Your task to perform on an android device: Open display settings Image 0: 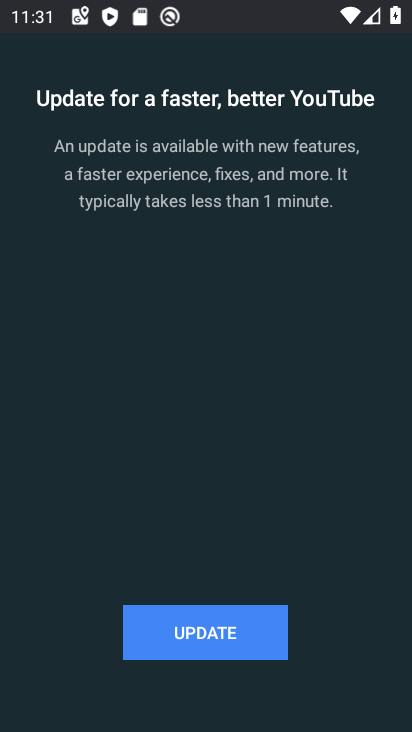
Step 0: press back button
Your task to perform on an android device: Open display settings Image 1: 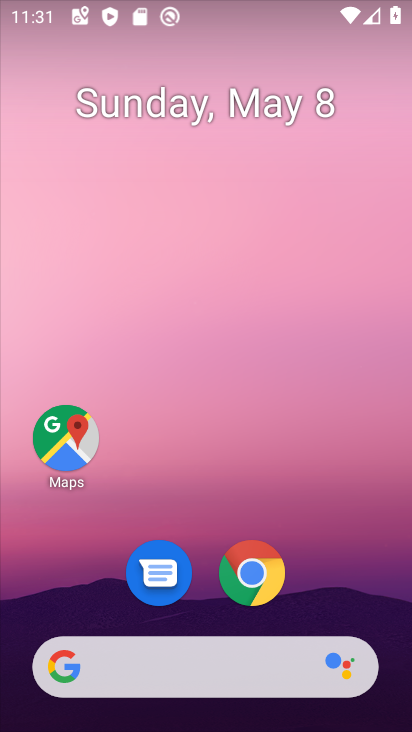
Step 1: drag from (340, 554) to (271, 27)
Your task to perform on an android device: Open display settings Image 2: 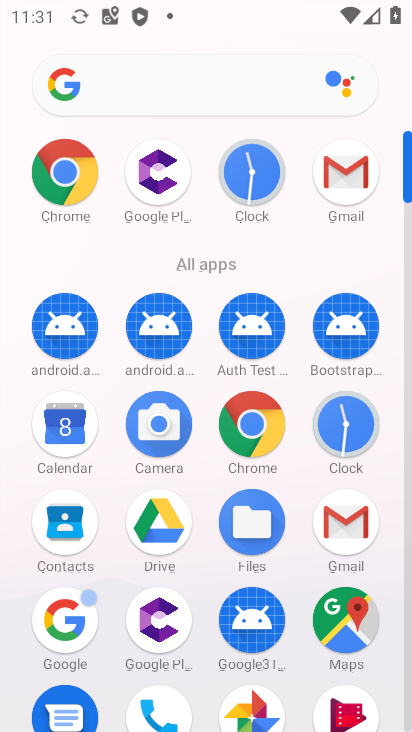
Step 2: drag from (12, 645) to (16, 296)
Your task to perform on an android device: Open display settings Image 3: 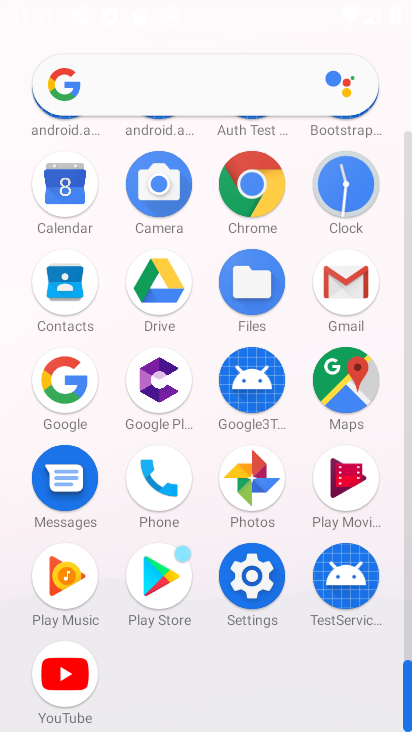
Step 3: click (251, 576)
Your task to perform on an android device: Open display settings Image 4: 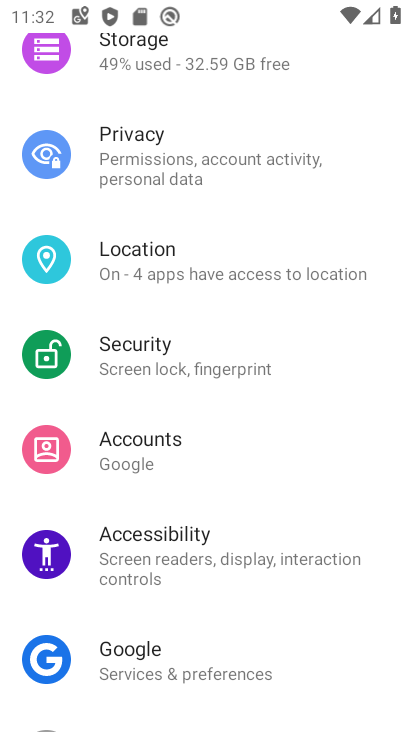
Step 4: drag from (260, 143) to (287, 488)
Your task to perform on an android device: Open display settings Image 5: 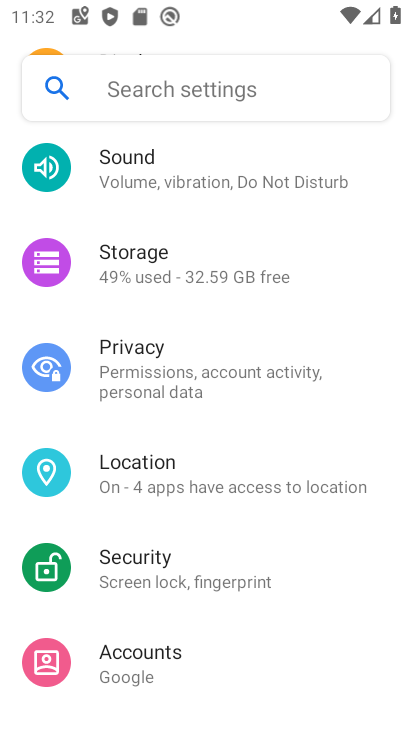
Step 5: drag from (242, 240) to (237, 547)
Your task to perform on an android device: Open display settings Image 6: 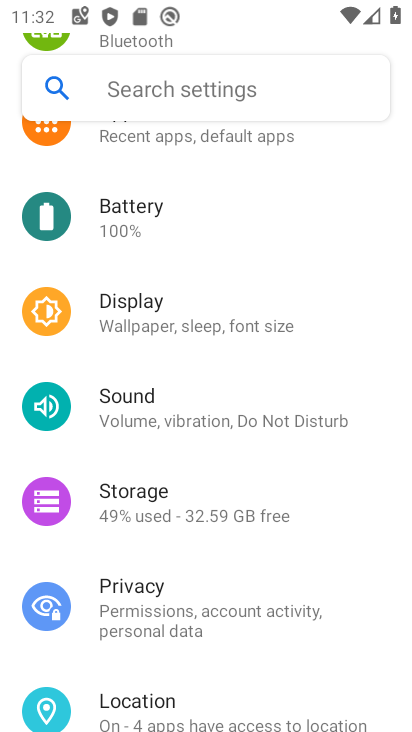
Step 6: drag from (255, 307) to (259, 462)
Your task to perform on an android device: Open display settings Image 7: 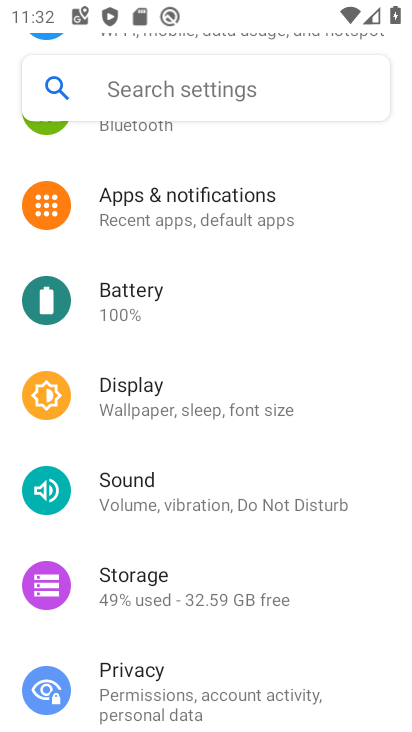
Step 7: click (205, 401)
Your task to perform on an android device: Open display settings Image 8: 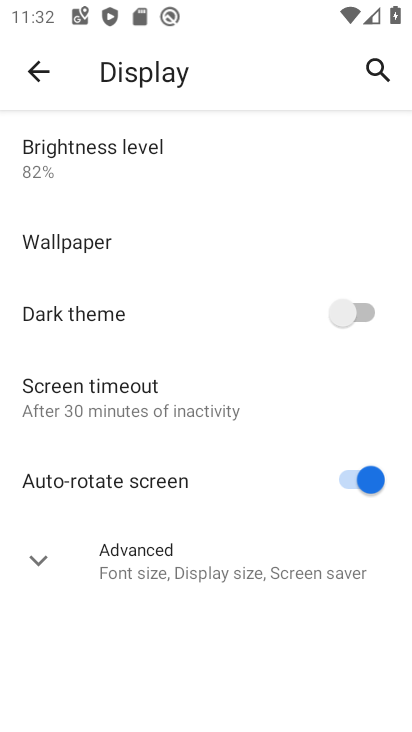
Step 8: click (34, 551)
Your task to perform on an android device: Open display settings Image 9: 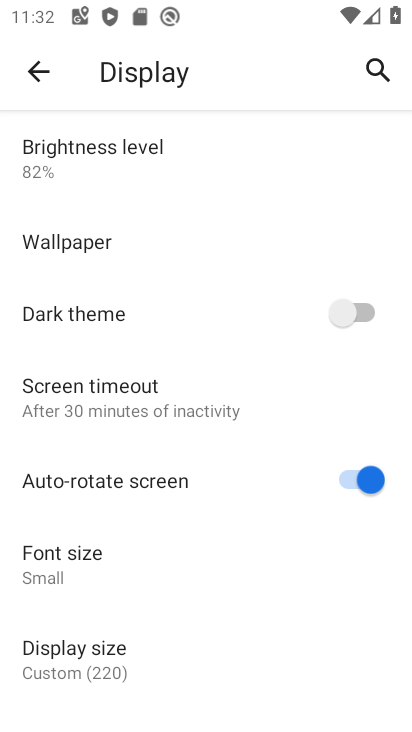
Step 9: task complete